Your task to perform on an android device: turn vacation reply on in the gmail app Image 0: 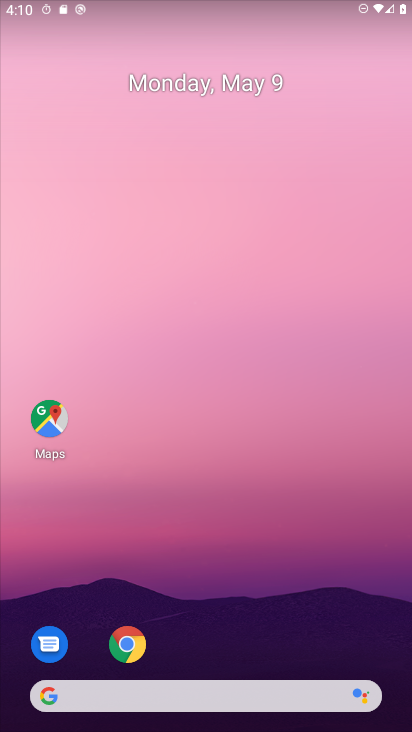
Step 0: drag from (288, 643) to (311, 105)
Your task to perform on an android device: turn vacation reply on in the gmail app Image 1: 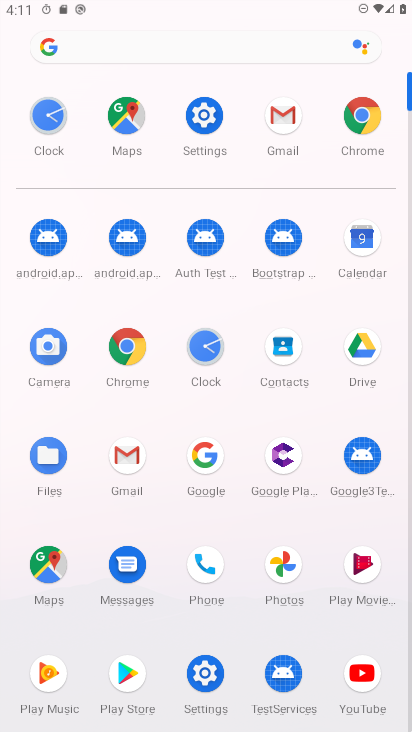
Step 1: drag from (305, 640) to (279, 188)
Your task to perform on an android device: turn vacation reply on in the gmail app Image 2: 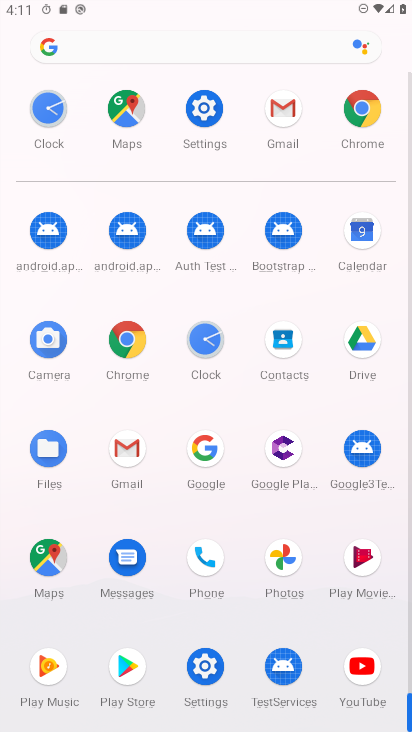
Step 2: click (282, 148)
Your task to perform on an android device: turn vacation reply on in the gmail app Image 3: 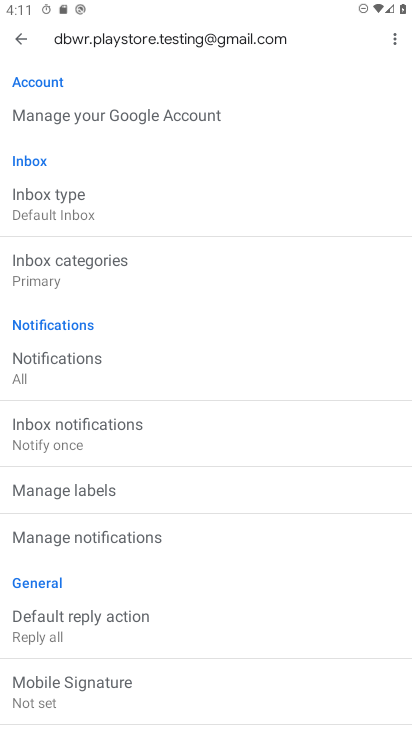
Step 3: drag from (190, 633) to (208, 242)
Your task to perform on an android device: turn vacation reply on in the gmail app Image 4: 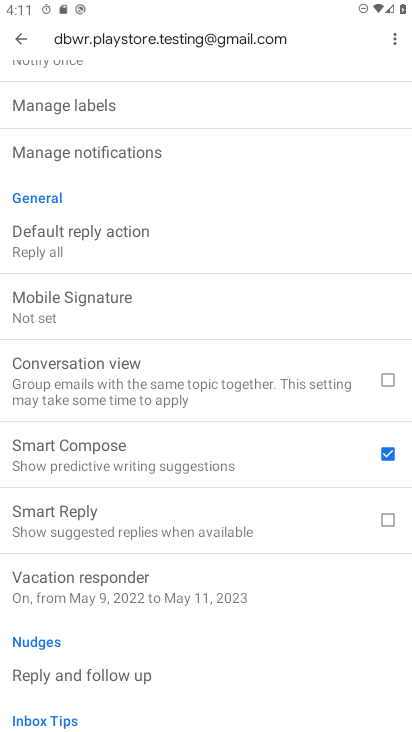
Step 4: drag from (164, 635) to (200, 203)
Your task to perform on an android device: turn vacation reply on in the gmail app Image 5: 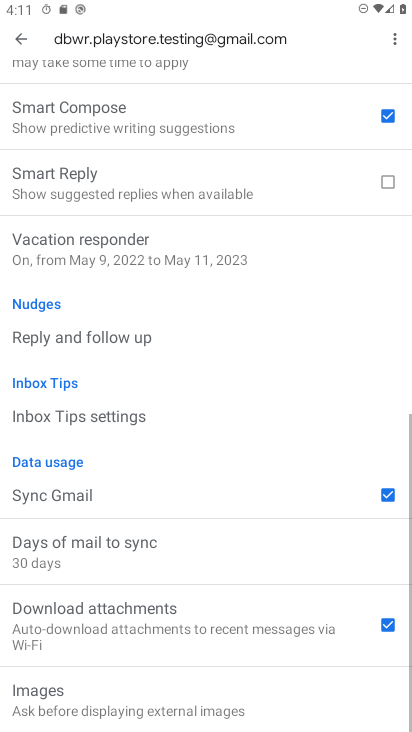
Step 5: click (132, 271)
Your task to perform on an android device: turn vacation reply on in the gmail app Image 6: 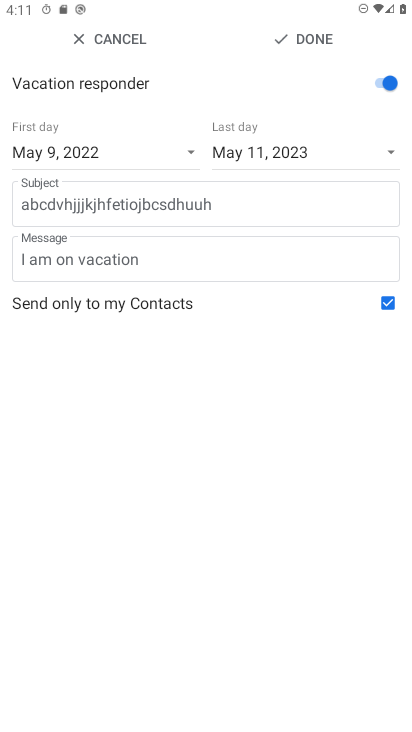
Step 6: task complete